Your task to perform on an android device: see creations saved in the google photos Image 0: 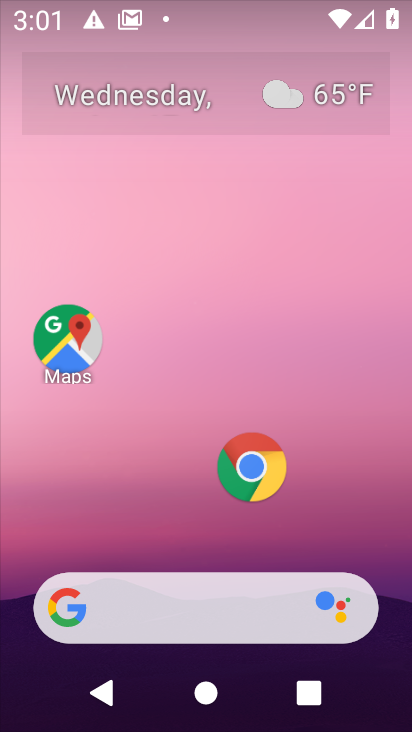
Step 0: drag from (177, 388) to (209, 315)
Your task to perform on an android device: see creations saved in the google photos Image 1: 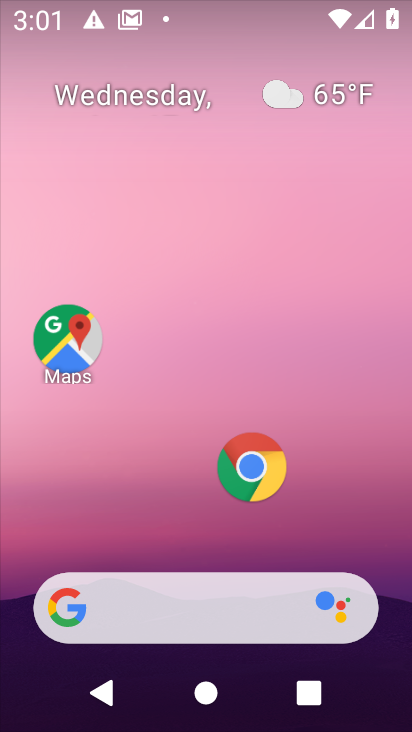
Step 1: task complete